Your task to perform on an android device: Clear the cart on amazon. Image 0: 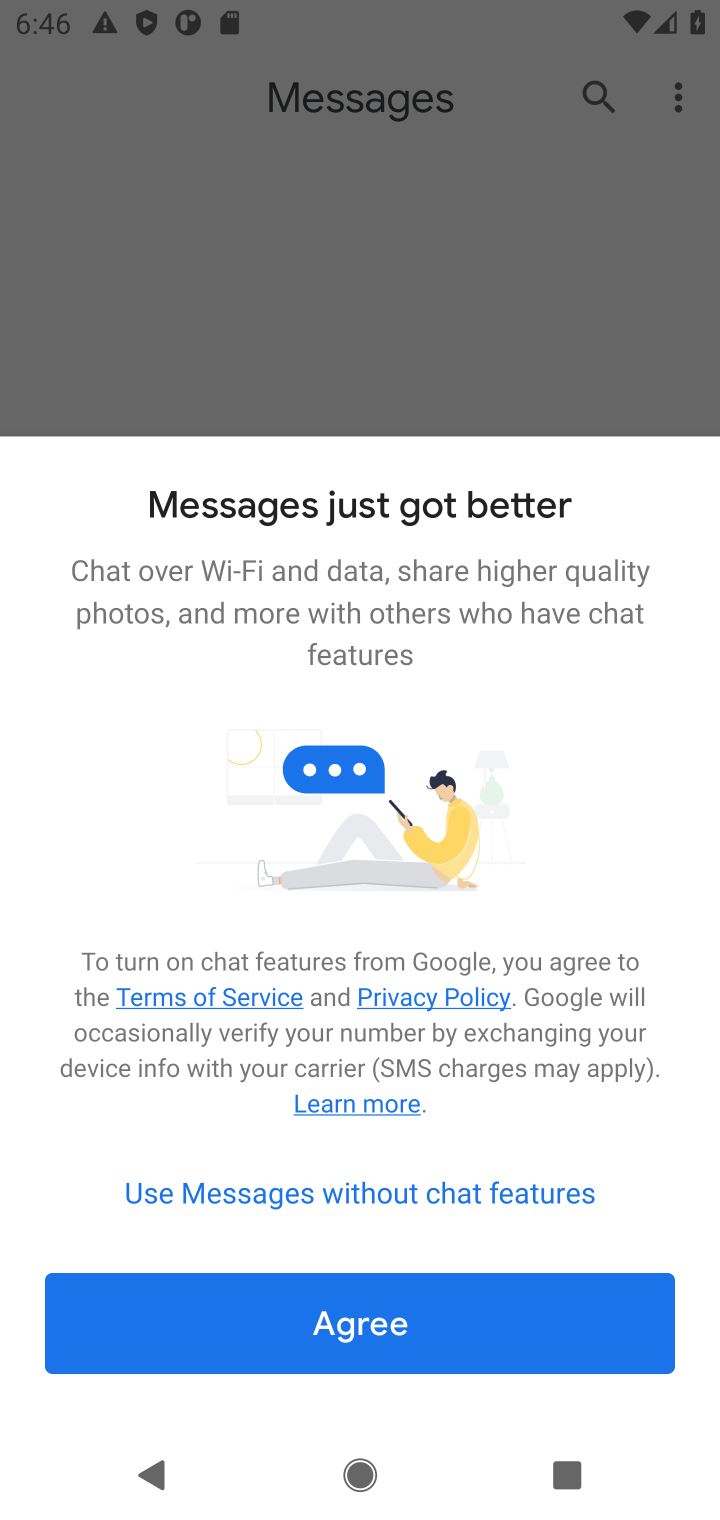
Step 0: press home button
Your task to perform on an android device: Clear the cart on amazon. Image 1: 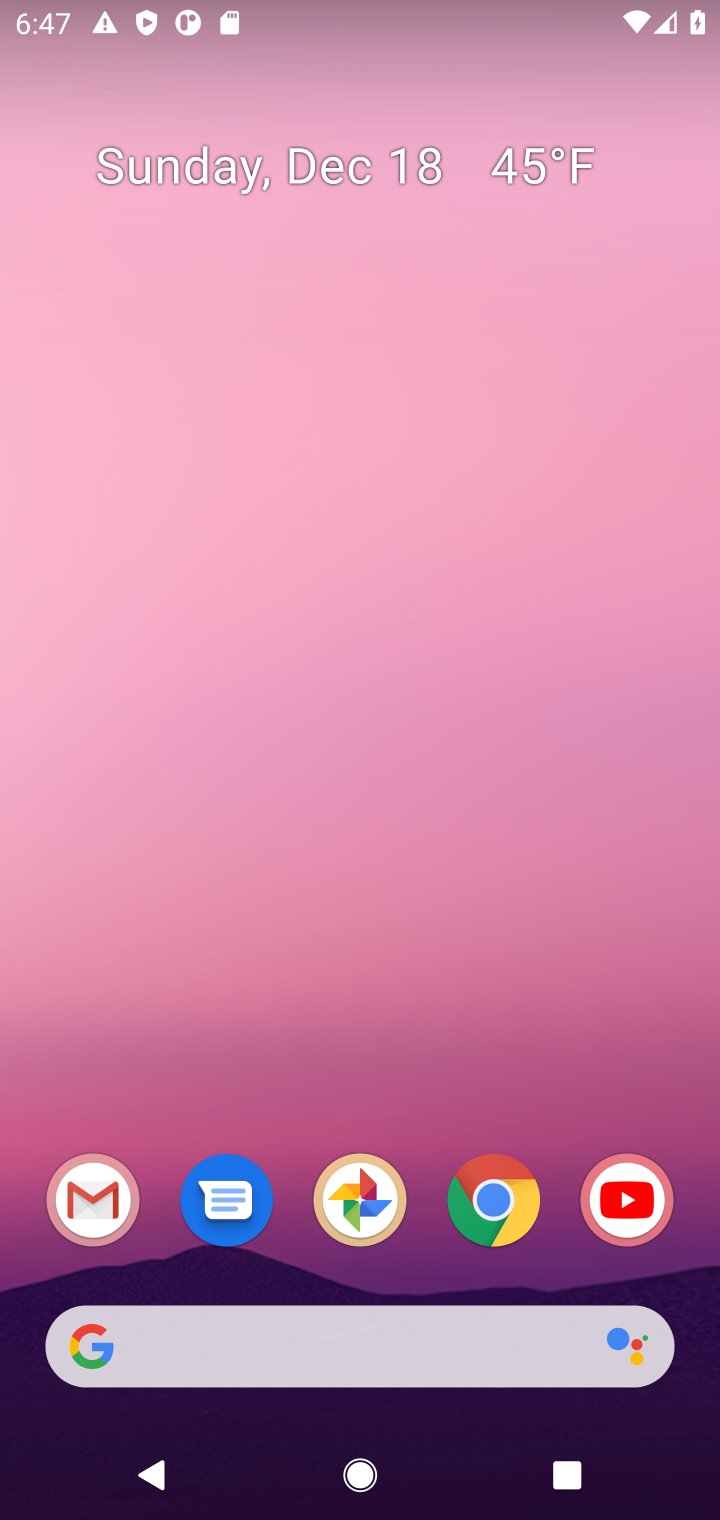
Step 1: click (495, 1196)
Your task to perform on an android device: Clear the cart on amazon. Image 2: 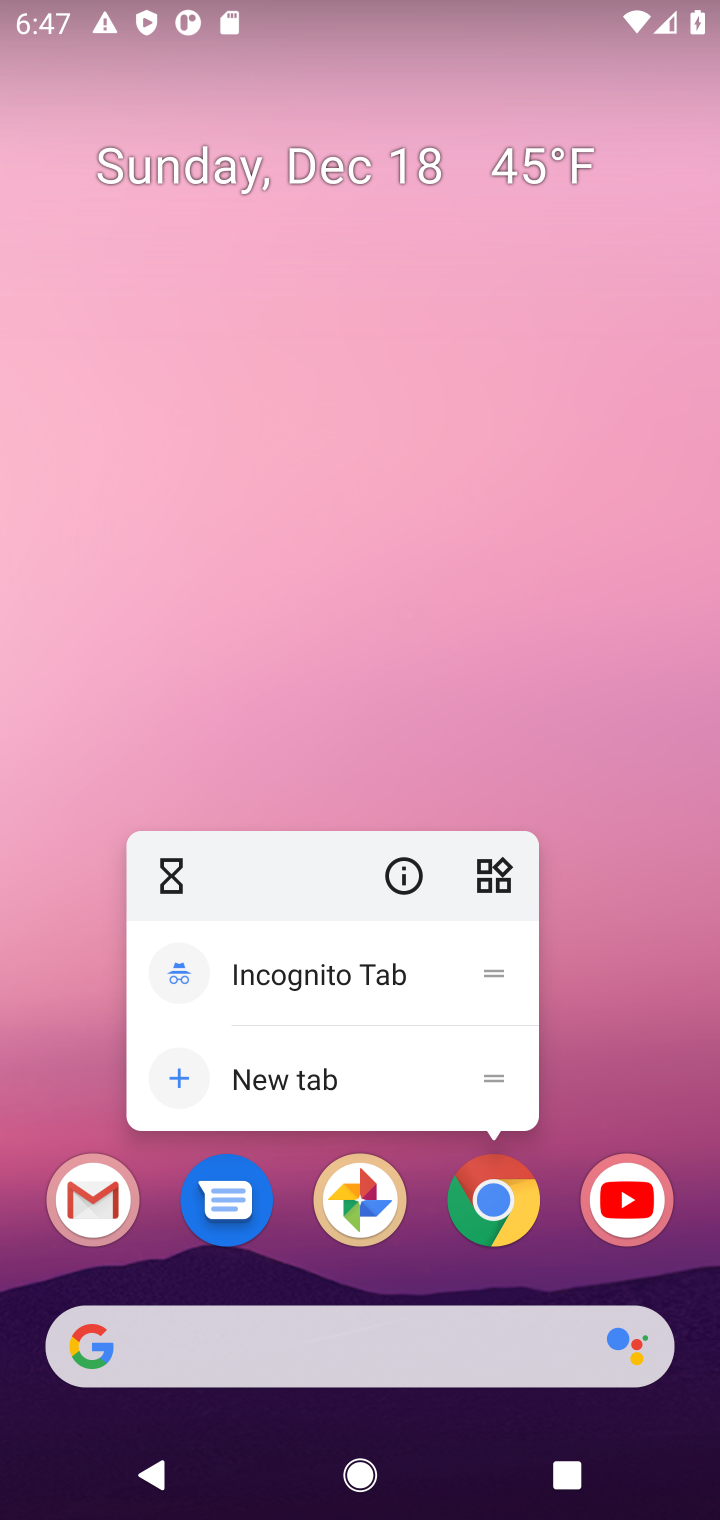
Step 2: click (491, 1214)
Your task to perform on an android device: Clear the cart on amazon. Image 3: 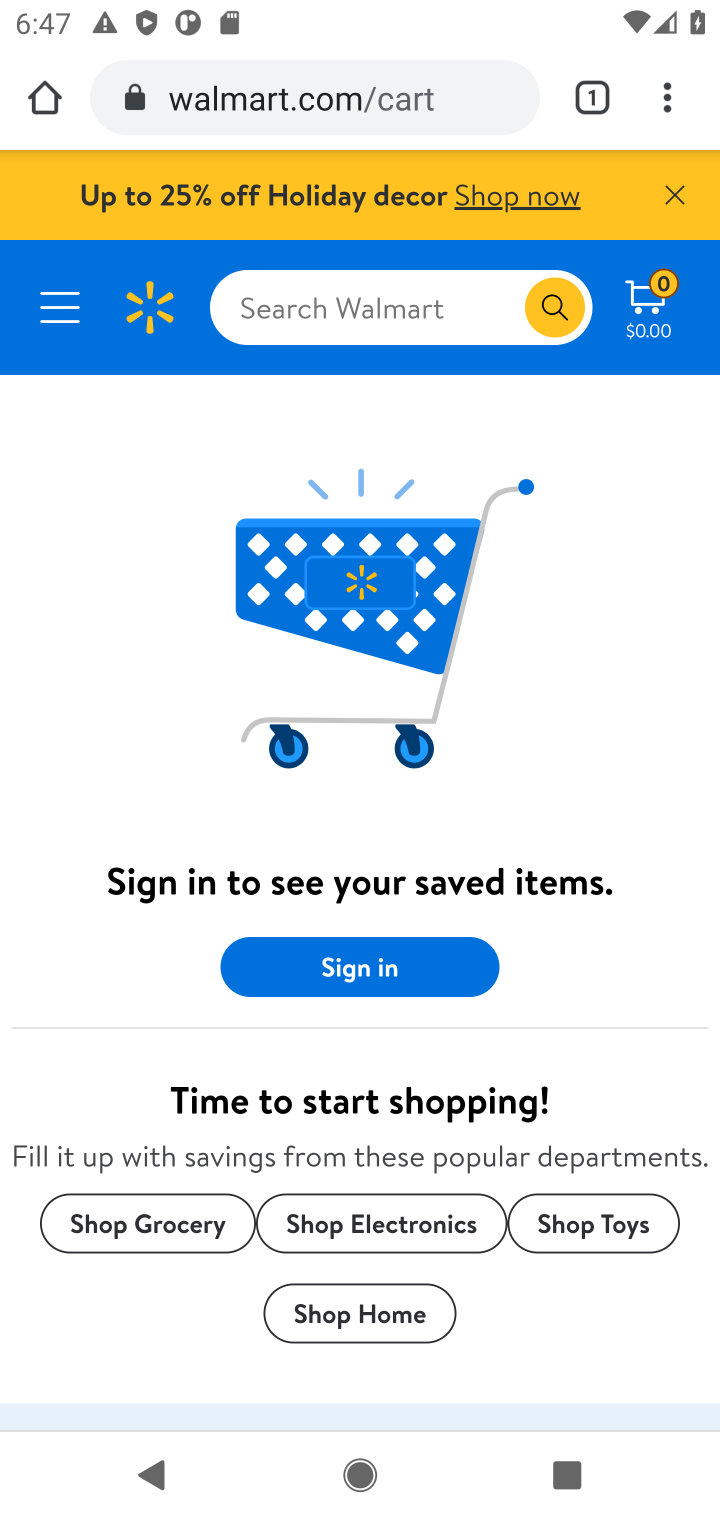
Step 3: click (268, 105)
Your task to perform on an android device: Clear the cart on amazon. Image 4: 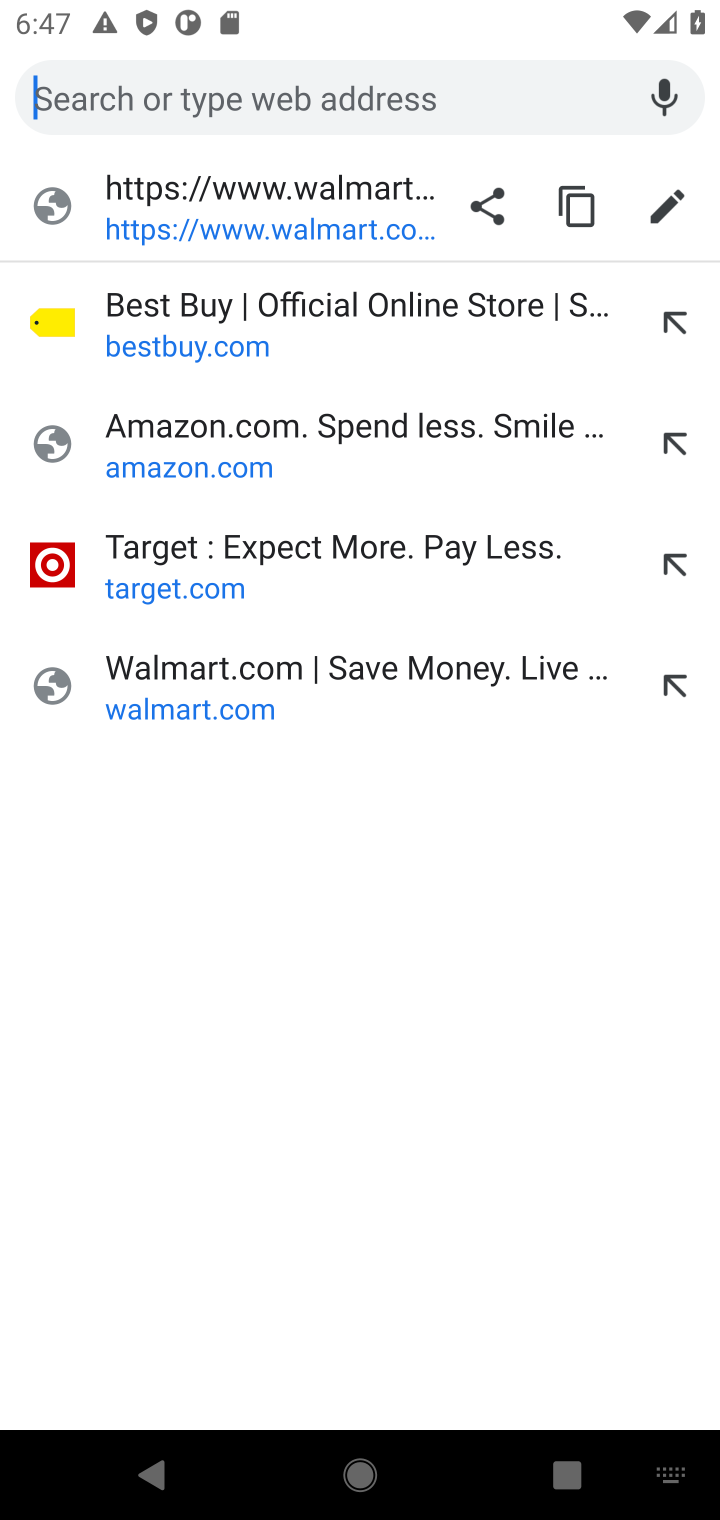
Step 4: click (137, 457)
Your task to perform on an android device: Clear the cart on amazon. Image 5: 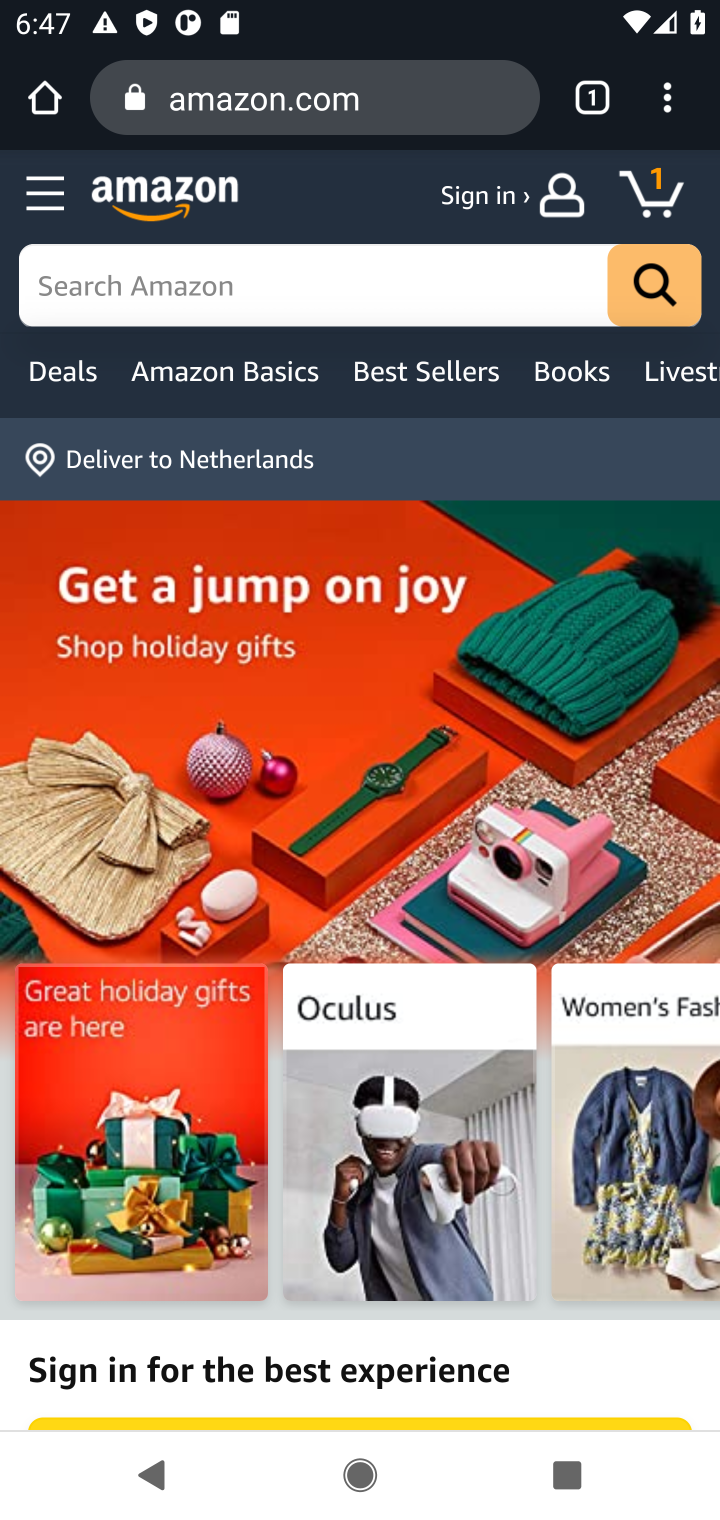
Step 5: click (654, 195)
Your task to perform on an android device: Clear the cart on amazon. Image 6: 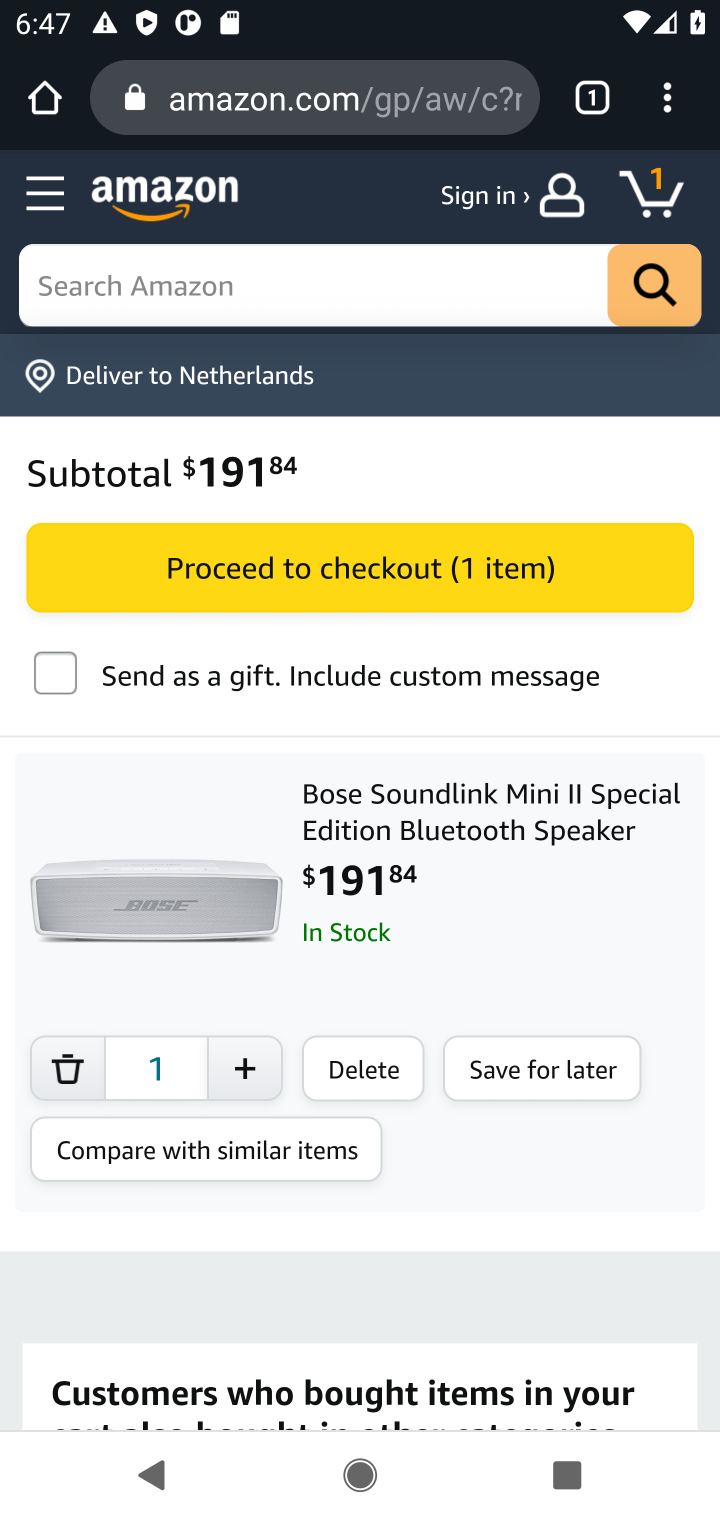
Step 6: click (350, 1077)
Your task to perform on an android device: Clear the cart on amazon. Image 7: 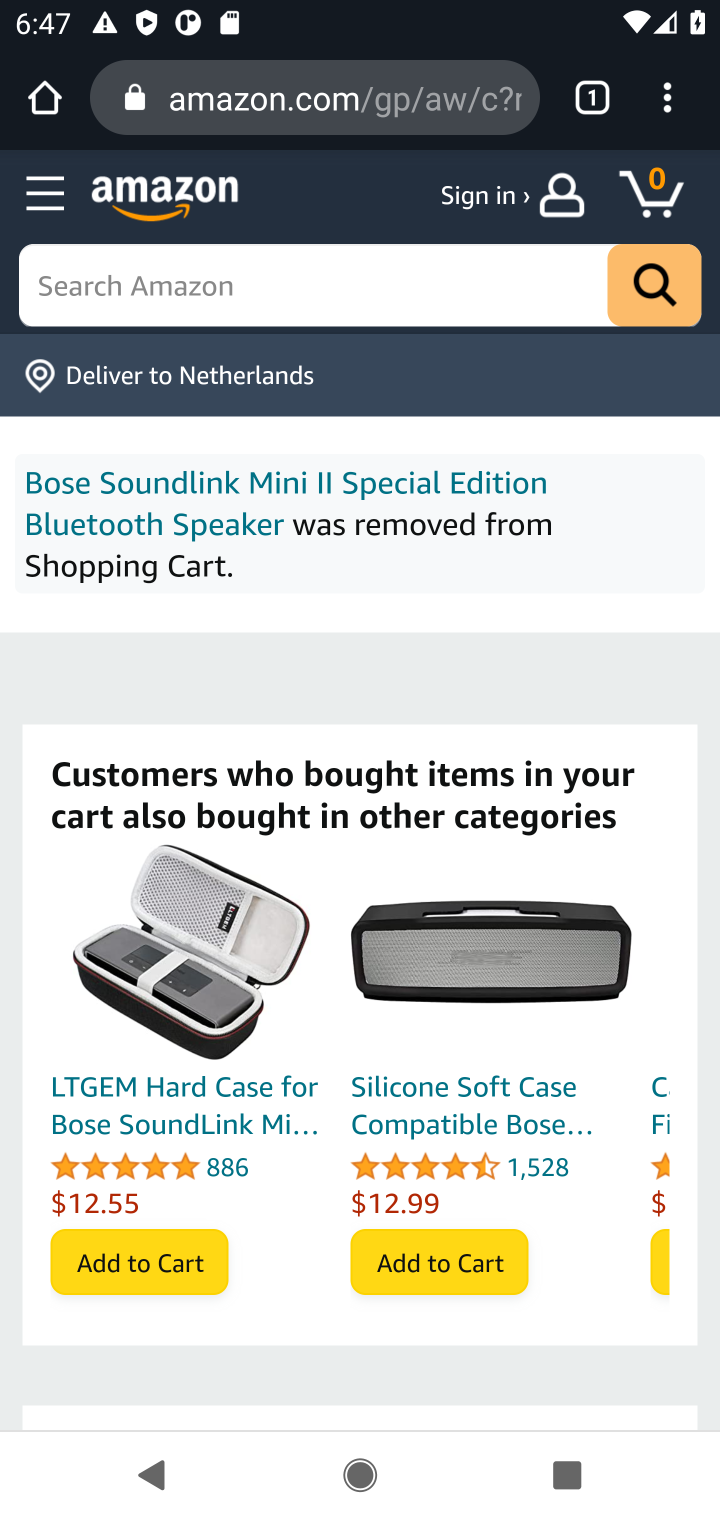
Step 7: task complete